Your task to perform on an android device: View the shopping cart on bestbuy.com. Add "razer huntsman" to the cart on bestbuy.com Image 0: 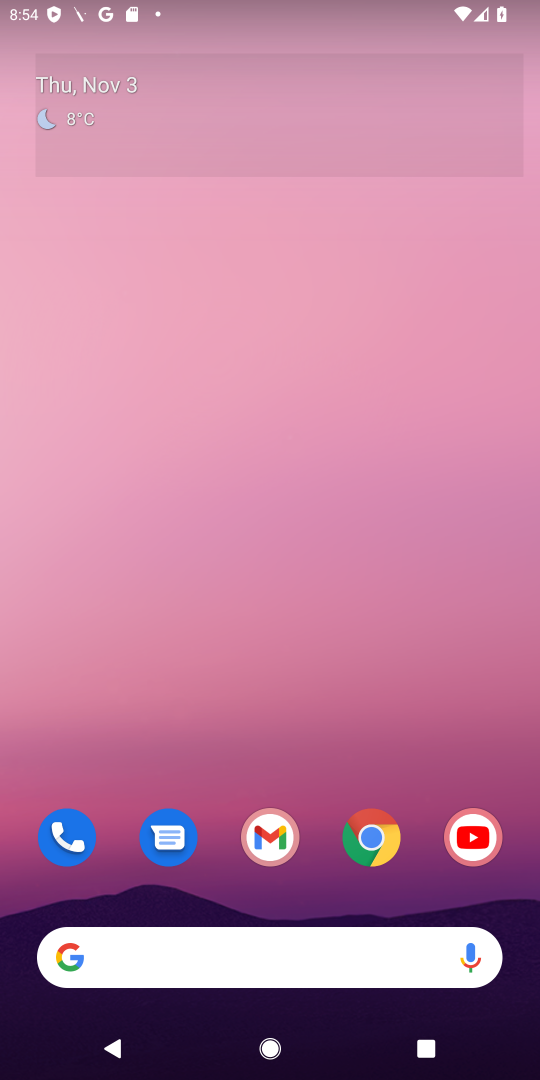
Step 0: click (375, 840)
Your task to perform on an android device: View the shopping cart on bestbuy.com. Add "razer huntsman" to the cart on bestbuy.com Image 1: 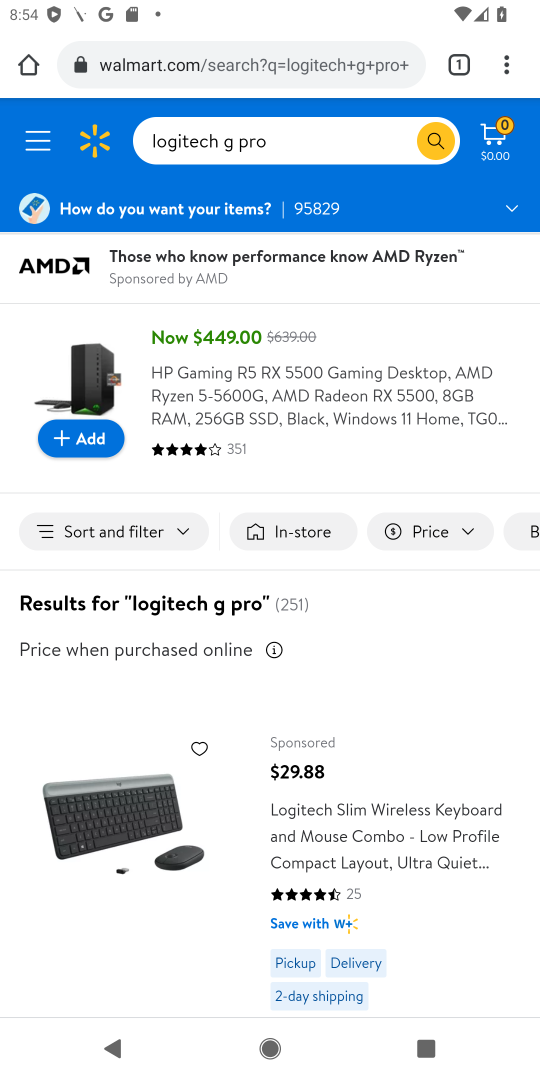
Step 1: click (263, 64)
Your task to perform on an android device: View the shopping cart on bestbuy.com. Add "razer huntsman" to the cart on bestbuy.com Image 2: 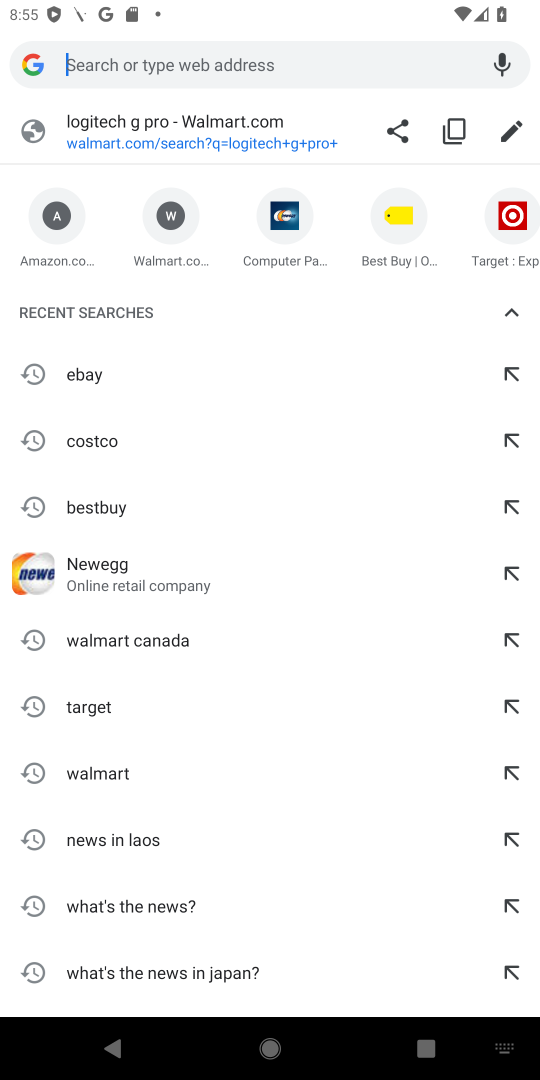
Step 2: click (406, 263)
Your task to perform on an android device: View the shopping cart on bestbuy.com. Add "razer huntsman" to the cart on bestbuy.com Image 3: 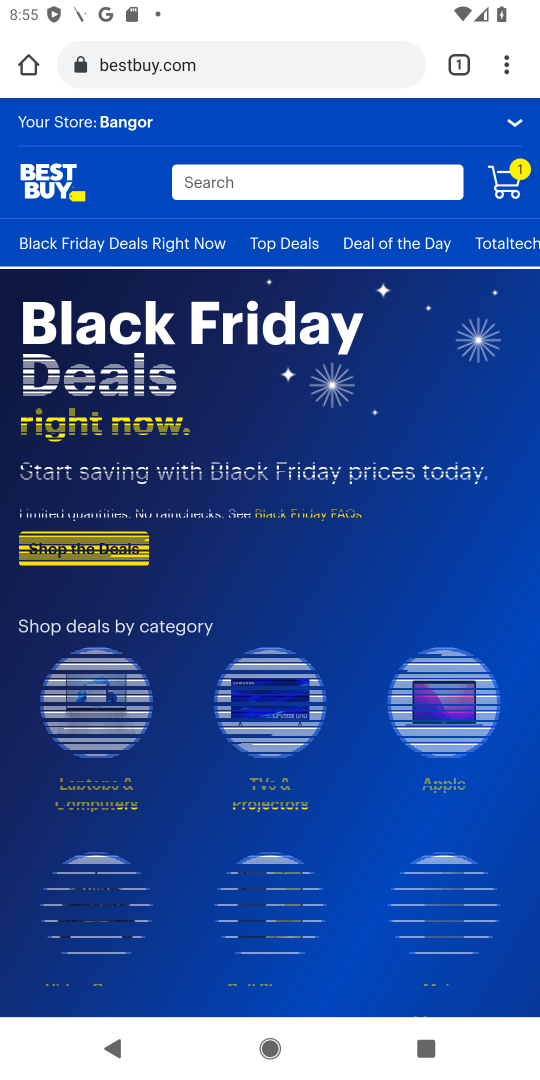
Step 3: click (267, 179)
Your task to perform on an android device: View the shopping cart on bestbuy.com. Add "razer huntsman" to the cart on bestbuy.com Image 4: 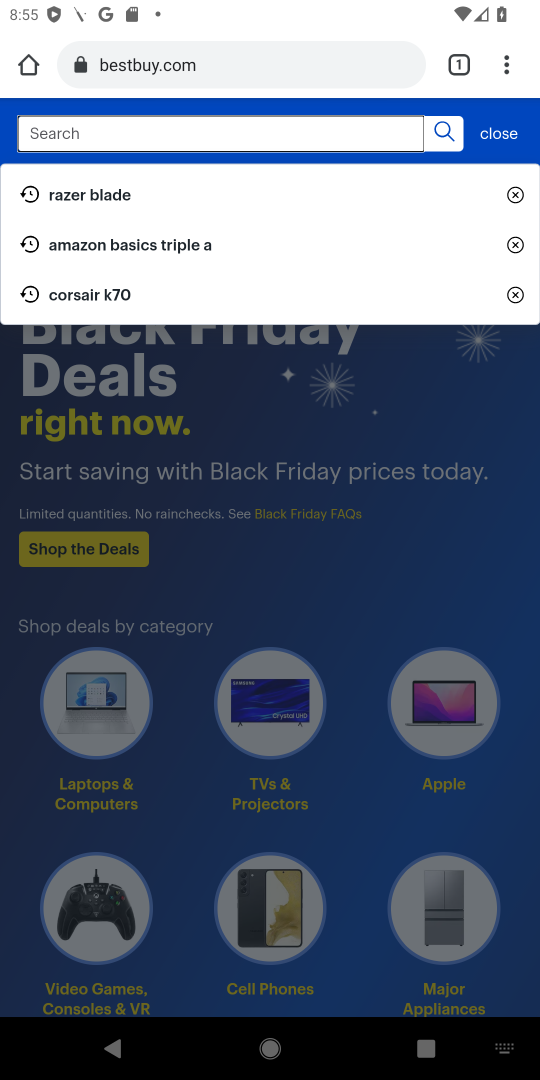
Step 4: type "razer huntsman"
Your task to perform on an android device: View the shopping cart on bestbuy.com. Add "razer huntsman" to the cart on bestbuy.com Image 5: 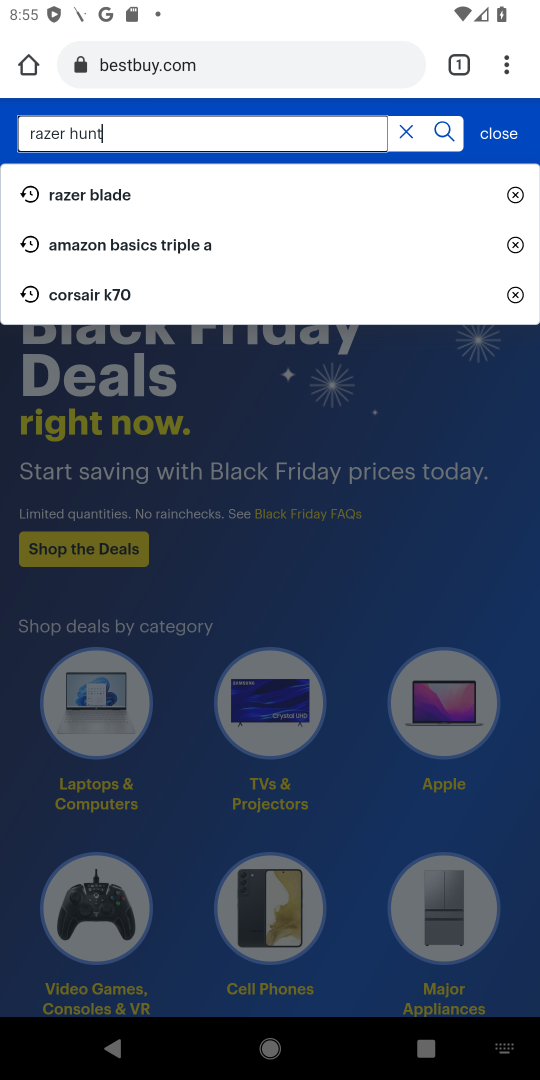
Step 5: press enter
Your task to perform on an android device: View the shopping cart on bestbuy.com. Add "razer huntsman" to the cart on bestbuy.com Image 6: 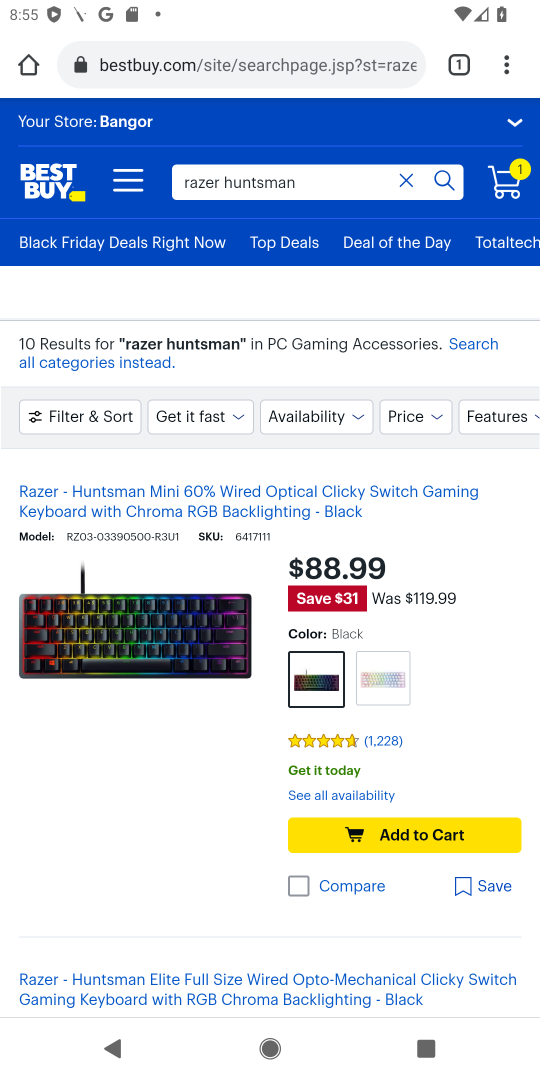
Step 6: click (392, 827)
Your task to perform on an android device: View the shopping cart on bestbuy.com. Add "razer huntsman" to the cart on bestbuy.com Image 7: 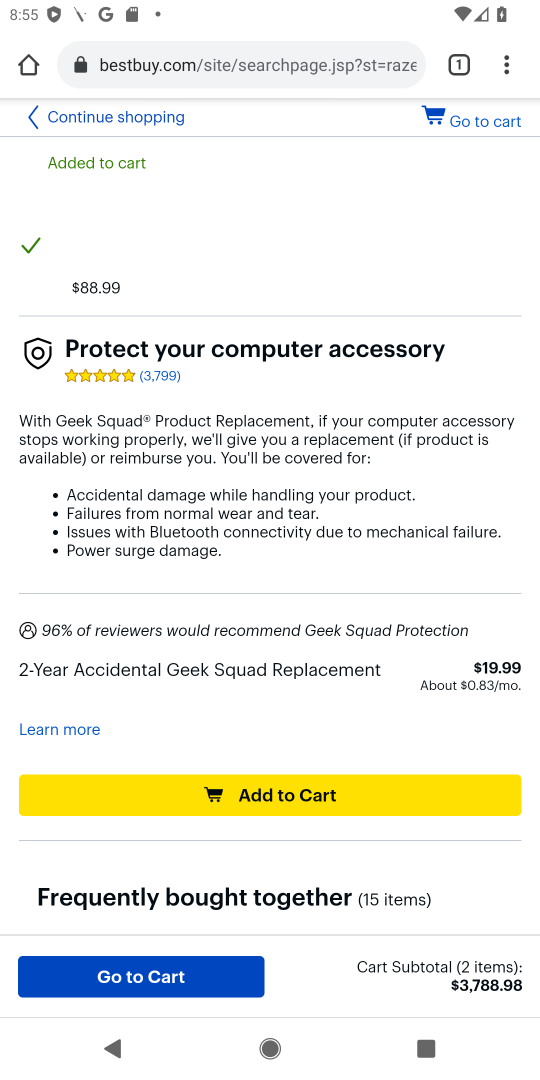
Step 7: click (489, 114)
Your task to perform on an android device: View the shopping cart on bestbuy.com. Add "razer huntsman" to the cart on bestbuy.com Image 8: 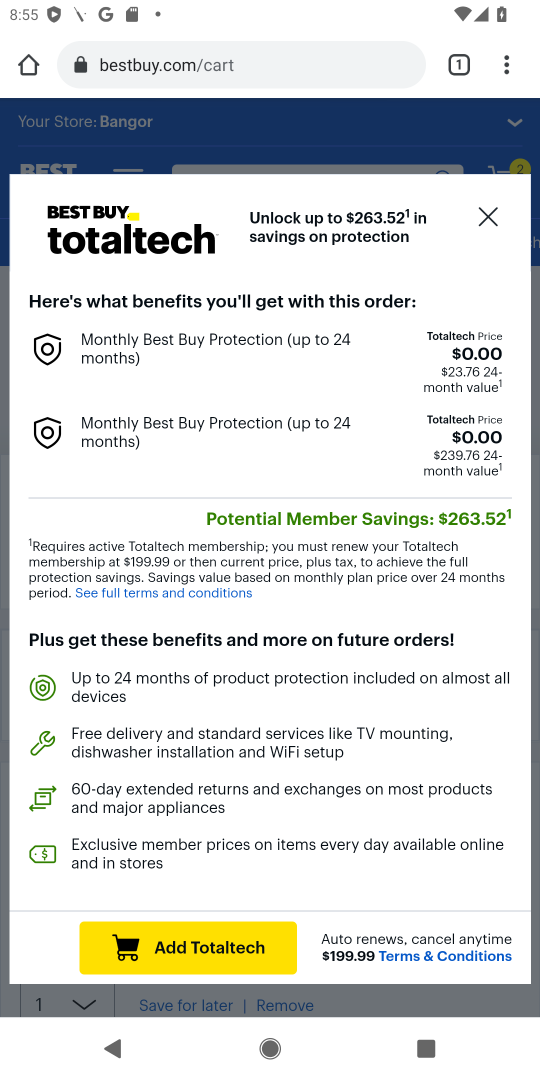
Step 8: click (489, 208)
Your task to perform on an android device: View the shopping cart on bestbuy.com. Add "razer huntsman" to the cart on bestbuy.com Image 9: 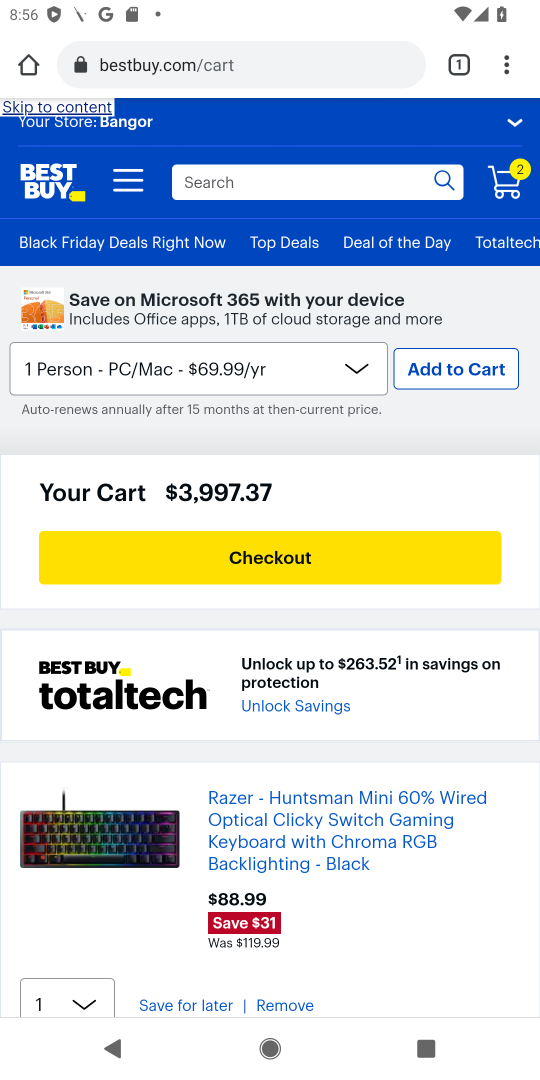
Step 9: drag from (285, 861) to (450, 169)
Your task to perform on an android device: View the shopping cart on bestbuy.com. Add "razer huntsman" to the cart on bestbuy.com Image 10: 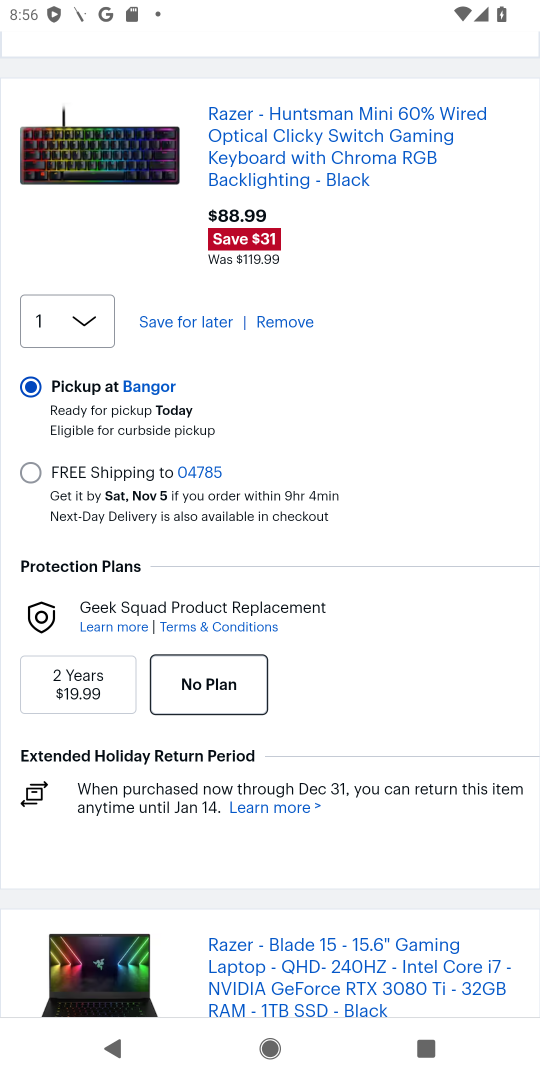
Step 10: drag from (269, 840) to (397, 435)
Your task to perform on an android device: View the shopping cart on bestbuy.com. Add "razer huntsman" to the cart on bestbuy.com Image 11: 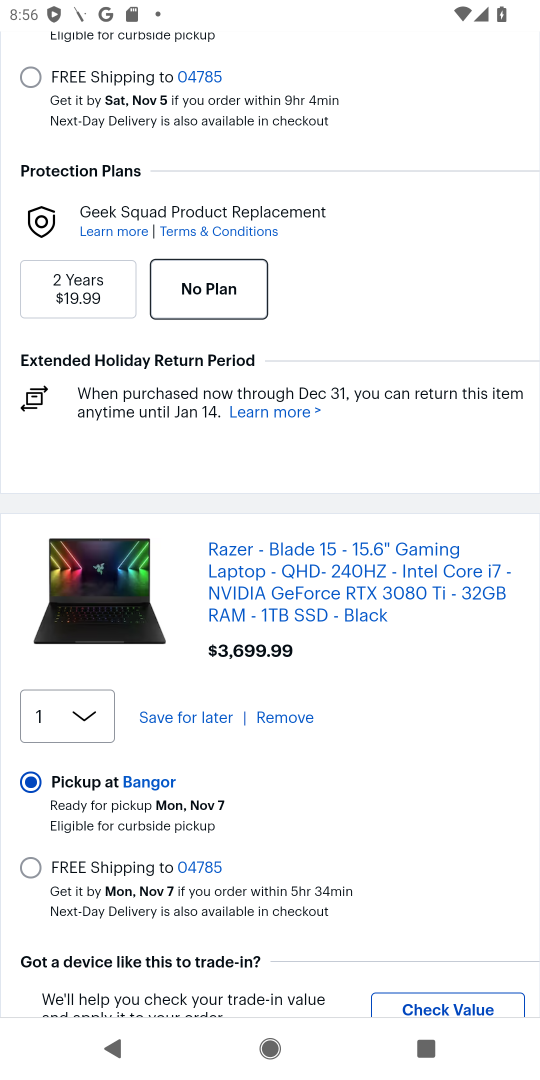
Step 11: click (280, 714)
Your task to perform on an android device: View the shopping cart on bestbuy.com. Add "razer huntsman" to the cart on bestbuy.com Image 12: 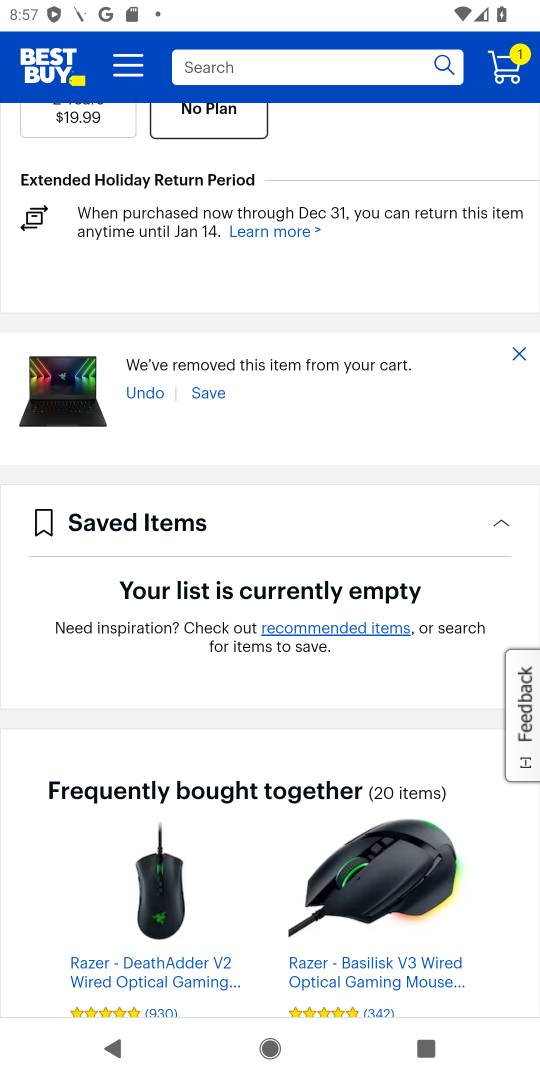
Step 12: task complete